Your task to perform on an android device: Clear the shopping cart on costco.com. Search for "razer kraken" on costco.com, select the first entry, add it to the cart, then select checkout. Image 0: 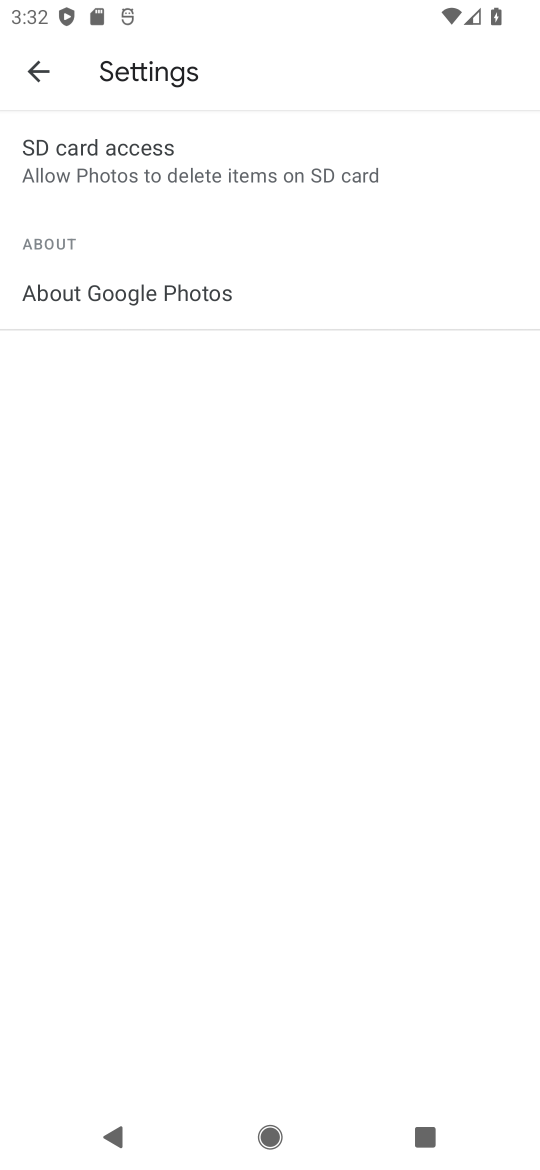
Step 0: press home button
Your task to perform on an android device: Clear the shopping cart on costco.com. Search for "razer kraken" on costco.com, select the first entry, add it to the cart, then select checkout. Image 1: 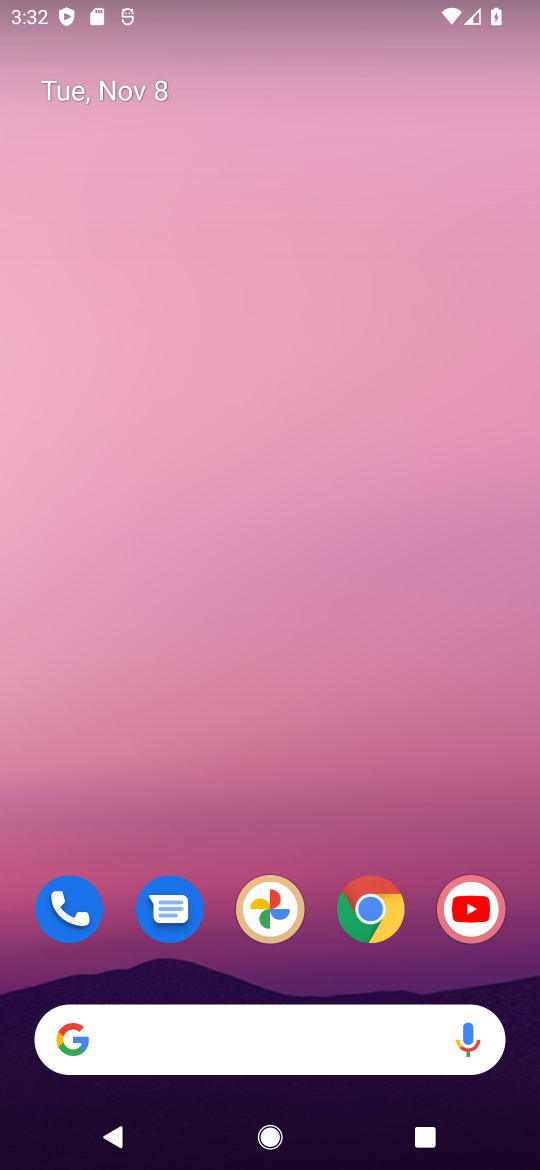
Step 1: click (378, 916)
Your task to perform on an android device: Clear the shopping cart on costco.com. Search for "razer kraken" on costco.com, select the first entry, add it to the cart, then select checkout. Image 2: 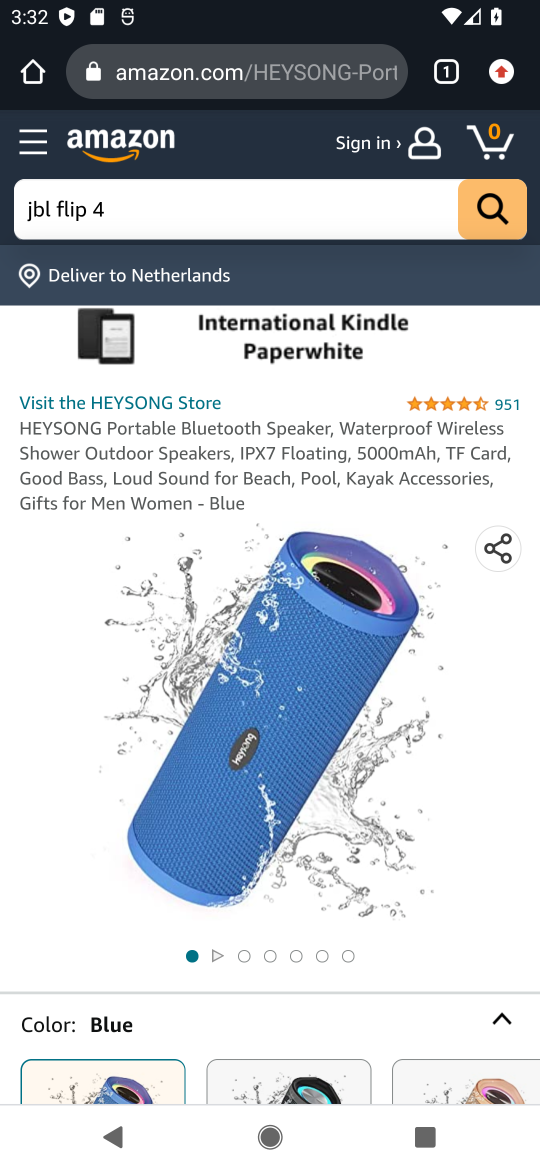
Step 2: click (241, 86)
Your task to perform on an android device: Clear the shopping cart on costco.com. Search for "razer kraken" on costco.com, select the first entry, add it to the cart, then select checkout. Image 3: 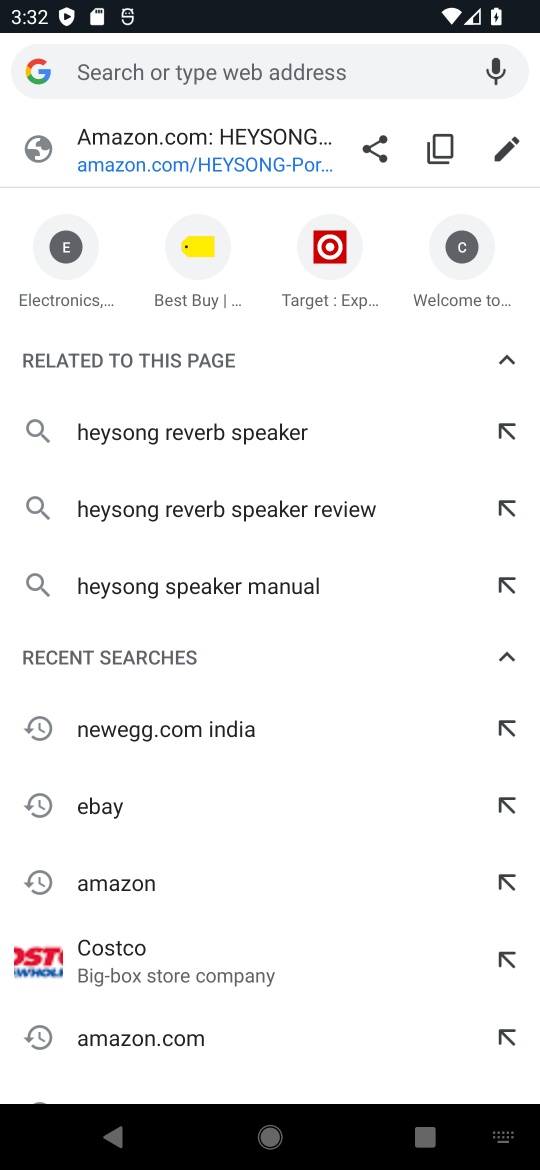
Step 3: drag from (445, 309) to (69, 302)
Your task to perform on an android device: Clear the shopping cart on costco.com. Search for "razer kraken" on costco.com, select the first entry, add it to the cart, then select checkout. Image 4: 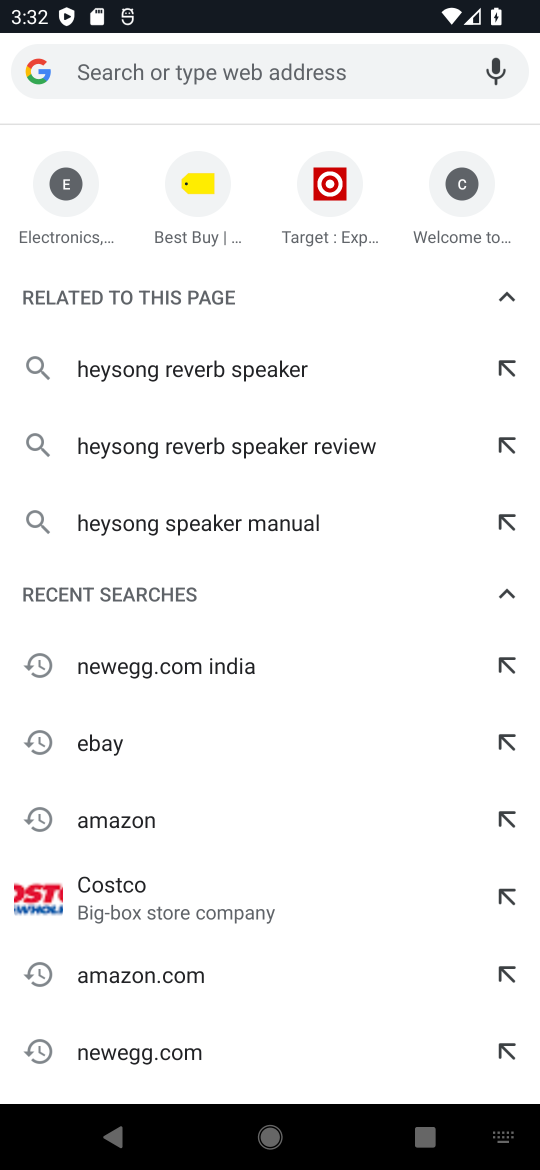
Step 4: click (112, 880)
Your task to perform on an android device: Clear the shopping cart on costco.com. Search for "razer kraken" on costco.com, select the first entry, add it to the cart, then select checkout. Image 5: 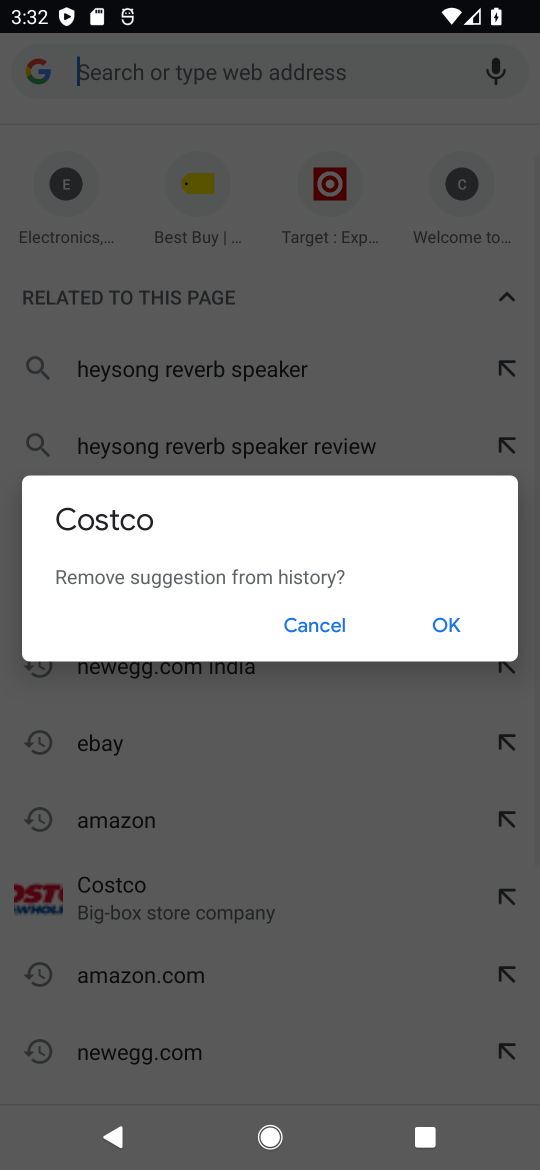
Step 5: click (299, 630)
Your task to perform on an android device: Clear the shopping cart on costco.com. Search for "razer kraken" on costco.com, select the first entry, add it to the cart, then select checkout. Image 6: 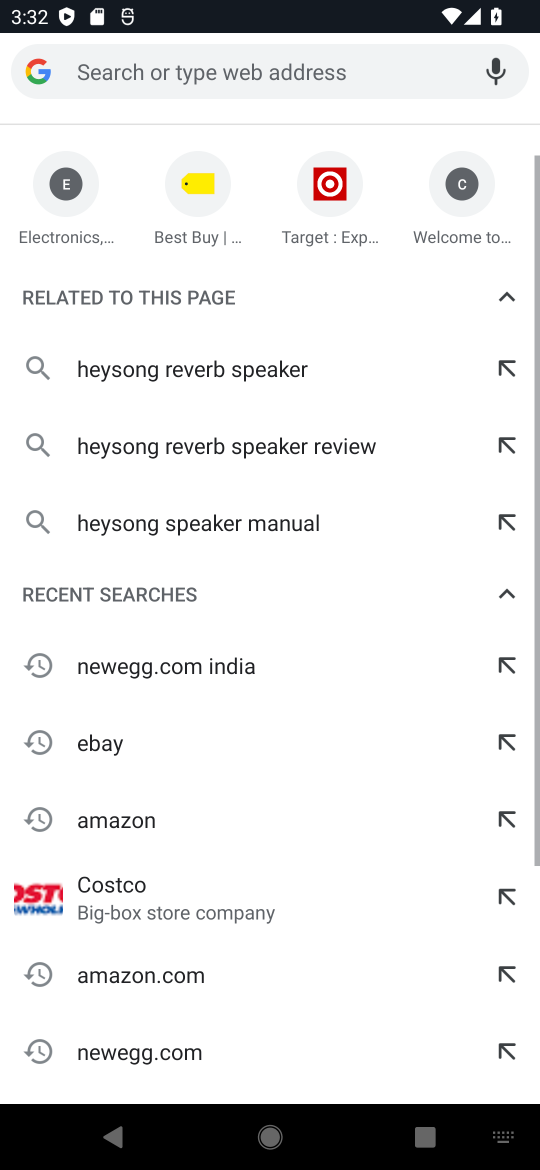
Step 6: click (114, 891)
Your task to perform on an android device: Clear the shopping cart on costco.com. Search for "razer kraken" on costco.com, select the first entry, add it to the cart, then select checkout. Image 7: 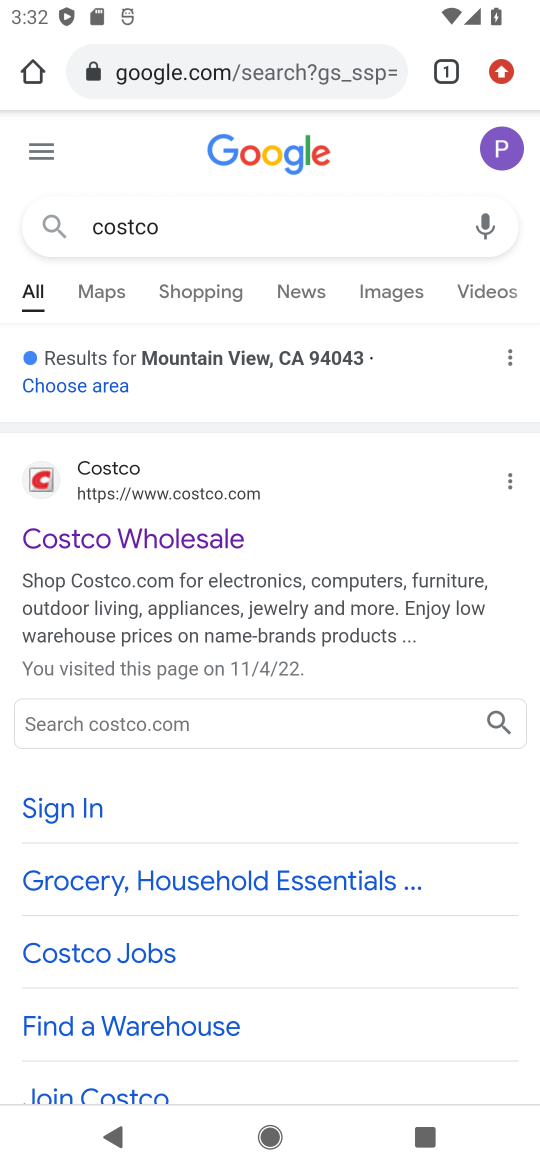
Step 7: click (127, 535)
Your task to perform on an android device: Clear the shopping cart on costco.com. Search for "razer kraken" on costco.com, select the first entry, add it to the cart, then select checkout. Image 8: 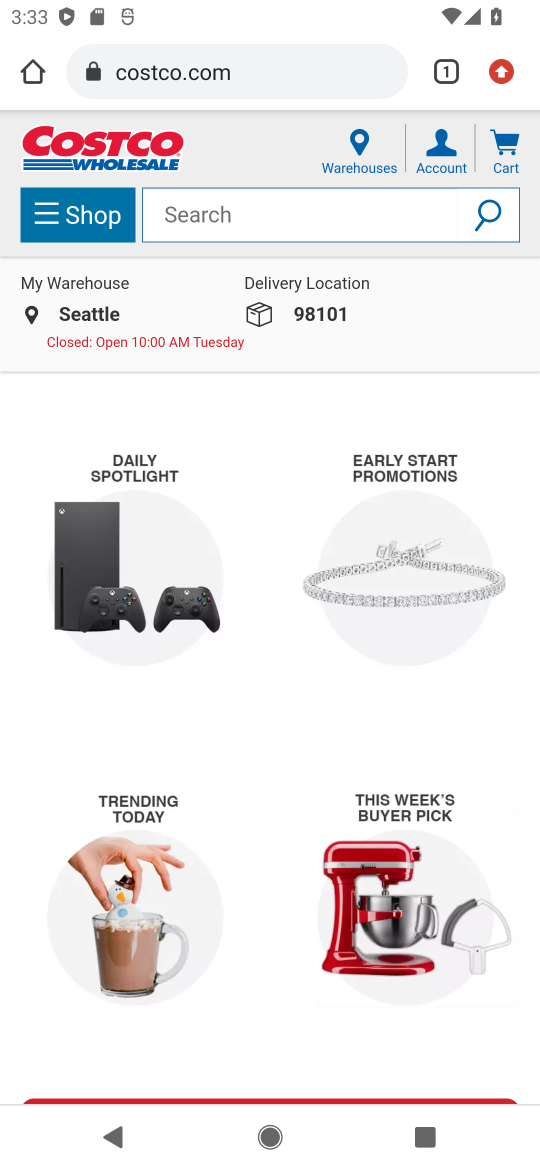
Step 8: click (265, 217)
Your task to perform on an android device: Clear the shopping cart on costco.com. Search for "razer kraken" on costco.com, select the first entry, add it to the cart, then select checkout. Image 9: 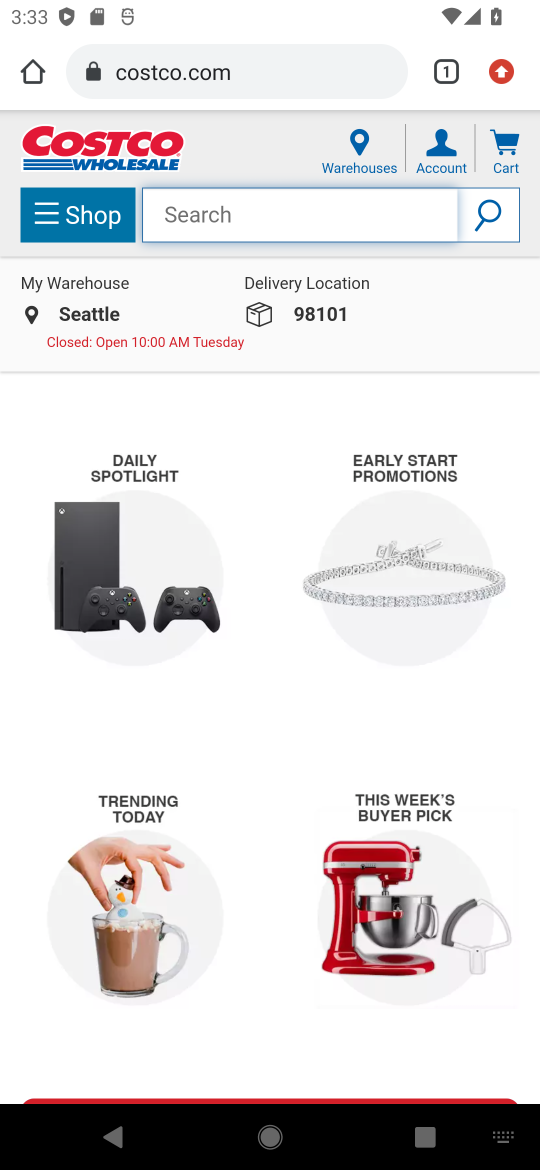
Step 9: type "razer kraken"
Your task to perform on an android device: Clear the shopping cart on costco.com. Search for "razer kraken" on costco.com, select the first entry, add it to the cart, then select checkout. Image 10: 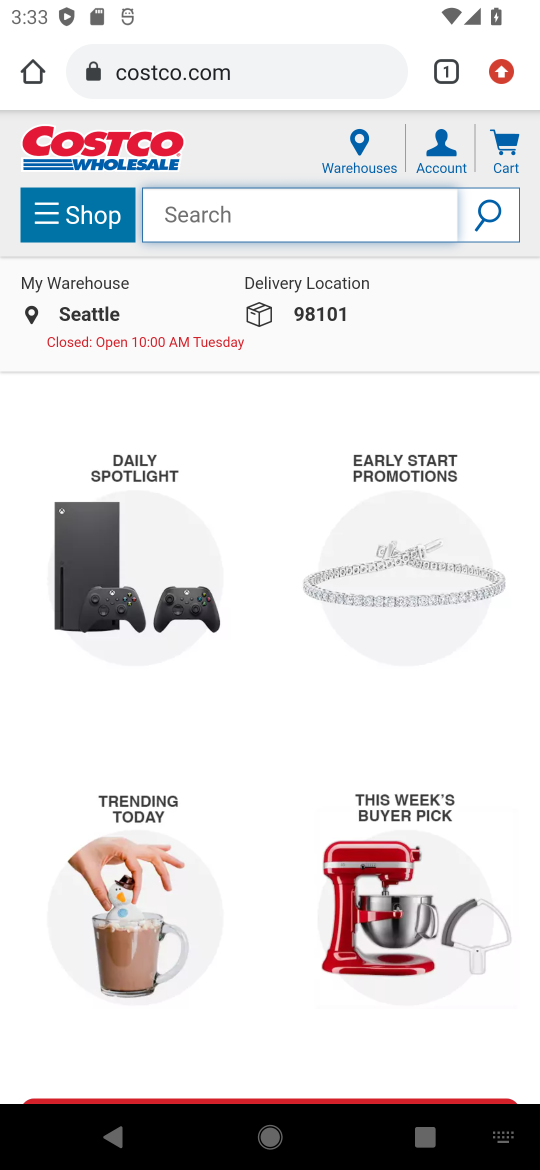
Step 10: press enter
Your task to perform on an android device: Clear the shopping cart on costco.com. Search for "razer kraken" on costco.com, select the first entry, add it to the cart, then select checkout. Image 11: 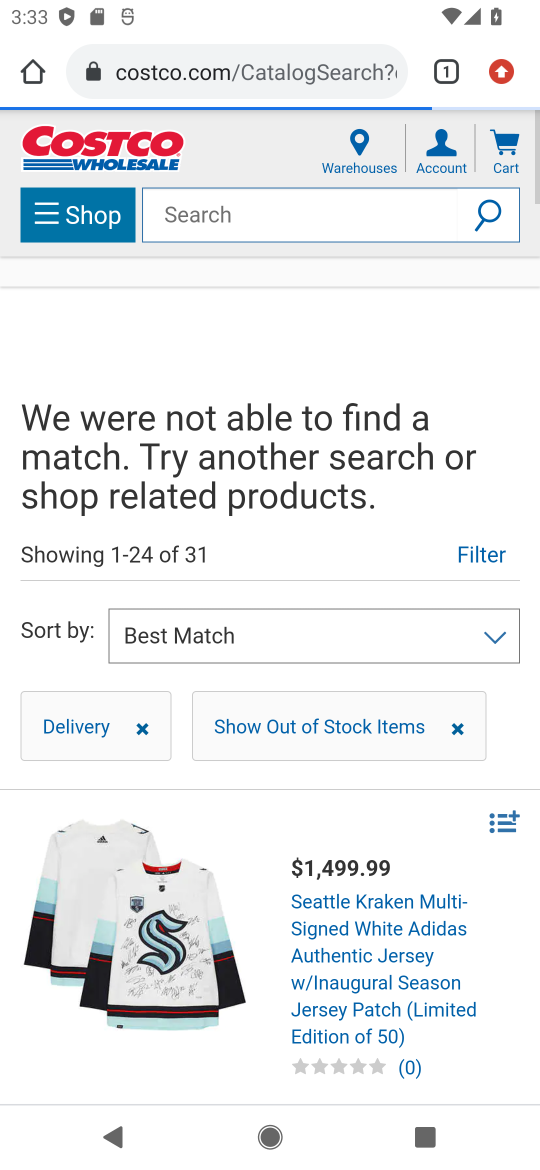
Step 11: press enter
Your task to perform on an android device: Clear the shopping cart on costco.com. Search for "razer kraken" on costco.com, select the first entry, add it to the cart, then select checkout. Image 12: 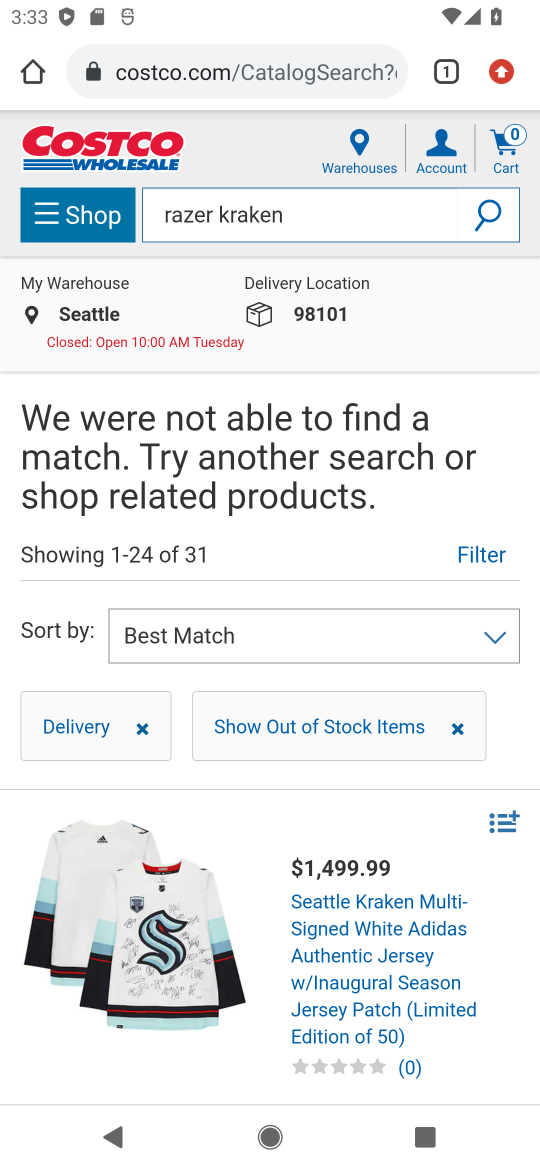
Step 12: task complete